Your task to perform on an android device: snooze an email in the gmail app Image 0: 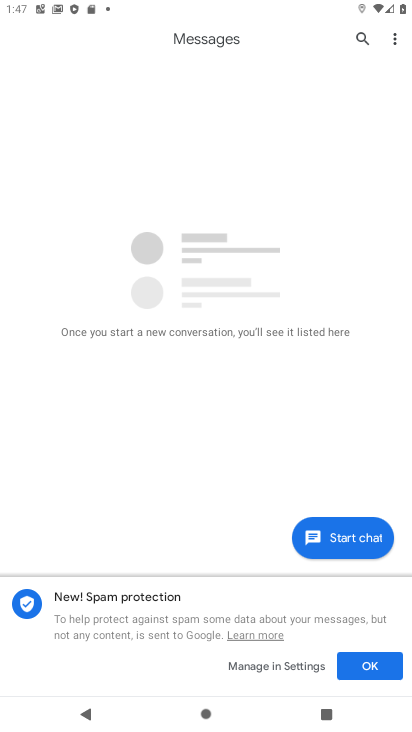
Step 0: press home button
Your task to perform on an android device: snooze an email in the gmail app Image 1: 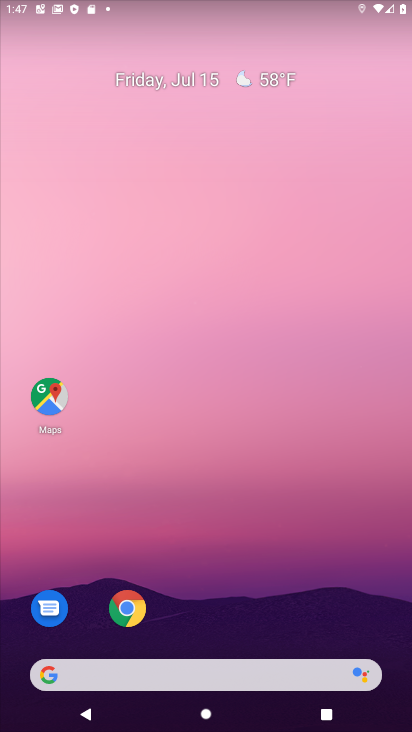
Step 1: drag from (208, 587) to (251, 77)
Your task to perform on an android device: snooze an email in the gmail app Image 2: 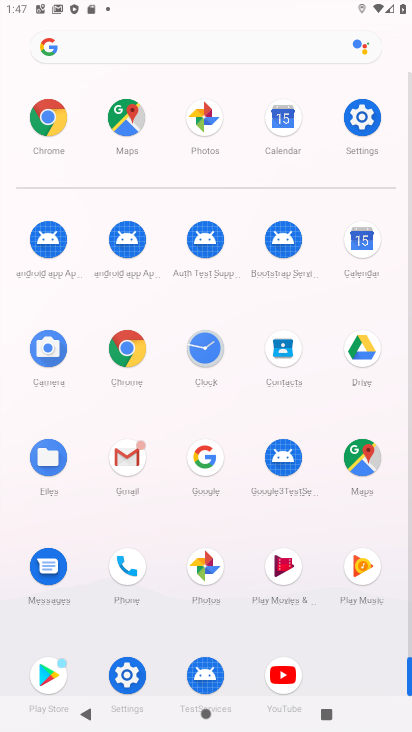
Step 2: click (129, 454)
Your task to perform on an android device: snooze an email in the gmail app Image 3: 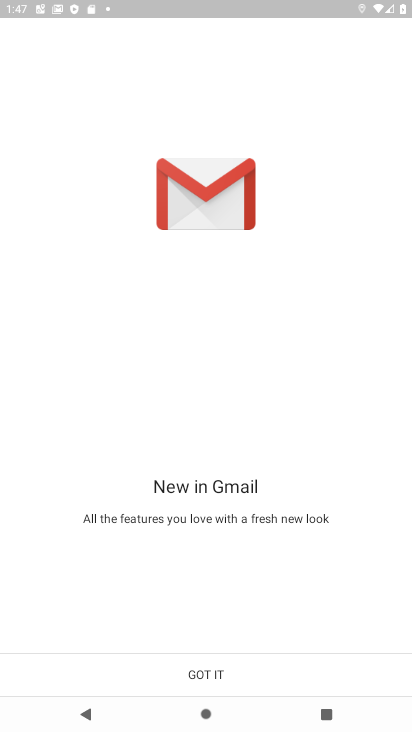
Step 3: click (218, 669)
Your task to perform on an android device: snooze an email in the gmail app Image 4: 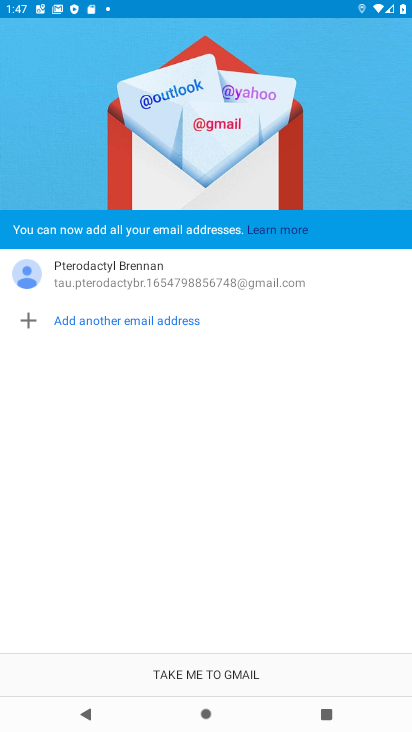
Step 4: click (218, 669)
Your task to perform on an android device: snooze an email in the gmail app Image 5: 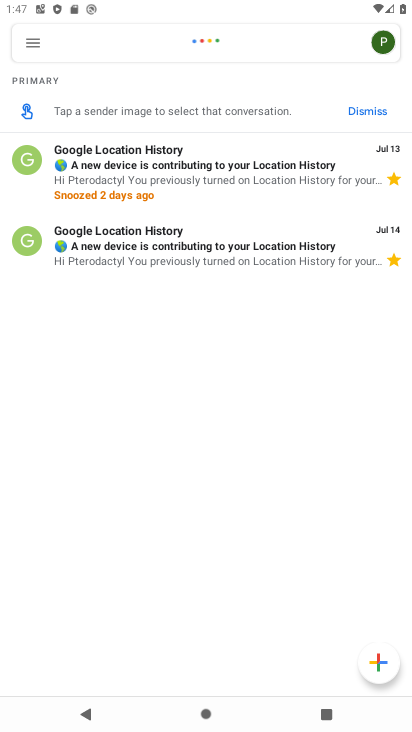
Step 5: click (37, 48)
Your task to perform on an android device: snooze an email in the gmail app Image 6: 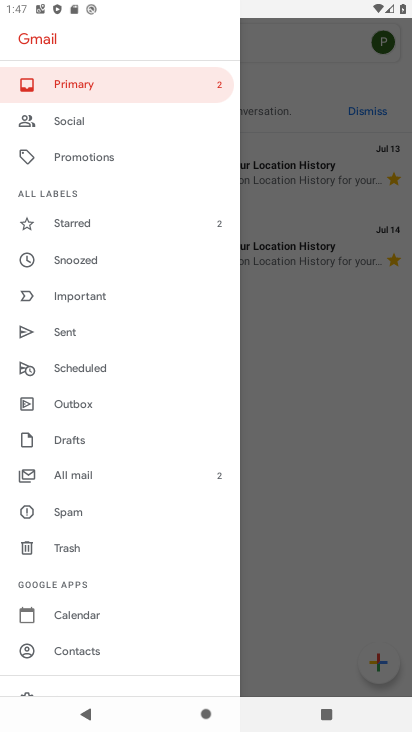
Step 6: click (75, 257)
Your task to perform on an android device: snooze an email in the gmail app Image 7: 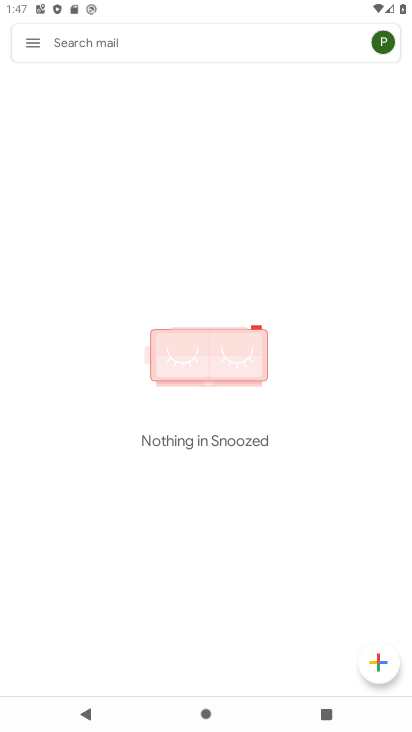
Step 7: task complete